Your task to perform on an android device: turn on showing notifications on the lock screen Image 0: 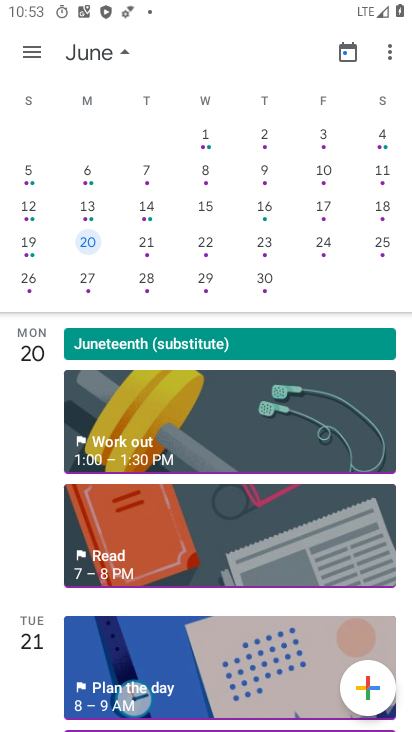
Step 0: press home button
Your task to perform on an android device: turn on showing notifications on the lock screen Image 1: 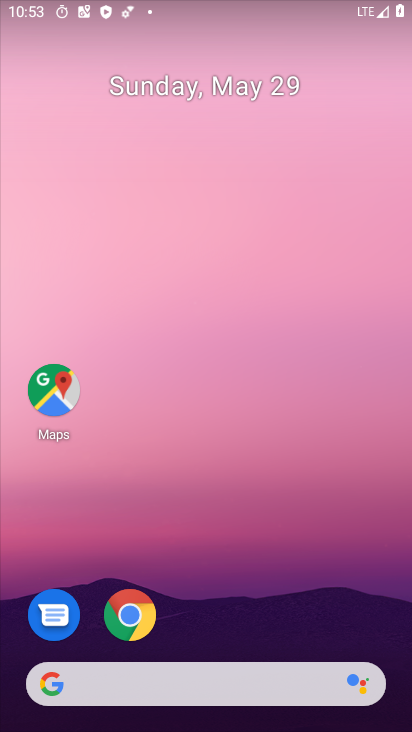
Step 1: drag from (334, 598) to (365, 210)
Your task to perform on an android device: turn on showing notifications on the lock screen Image 2: 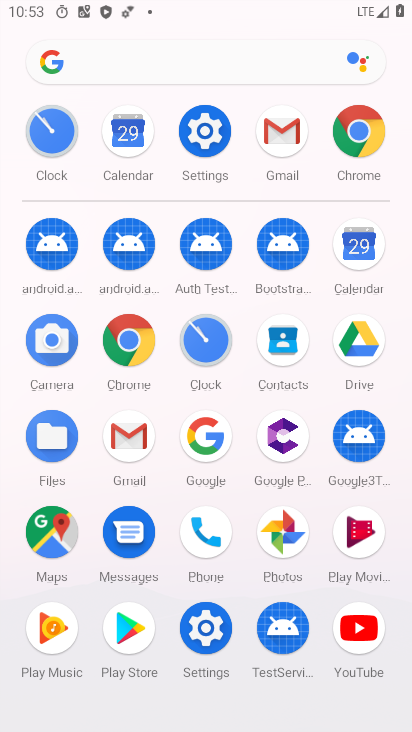
Step 2: click (214, 646)
Your task to perform on an android device: turn on showing notifications on the lock screen Image 3: 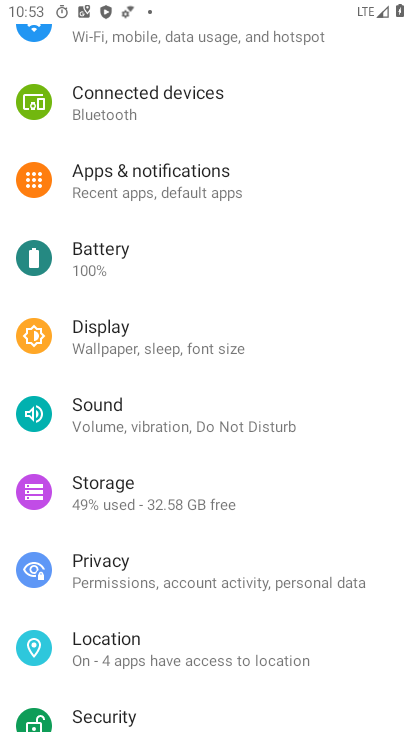
Step 3: drag from (340, 205) to (338, 321)
Your task to perform on an android device: turn on showing notifications on the lock screen Image 4: 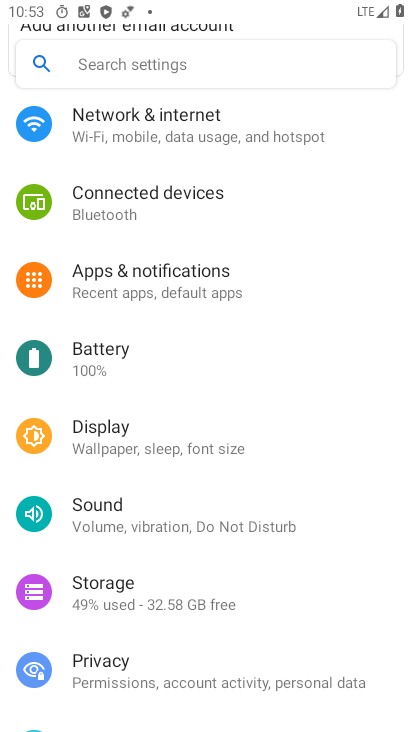
Step 4: drag from (354, 167) to (343, 416)
Your task to perform on an android device: turn on showing notifications on the lock screen Image 5: 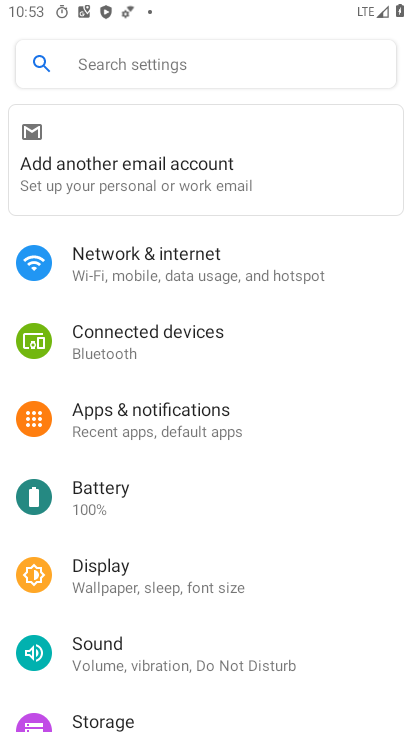
Step 5: click (162, 437)
Your task to perform on an android device: turn on showing notifications on the lock screen Image 6: 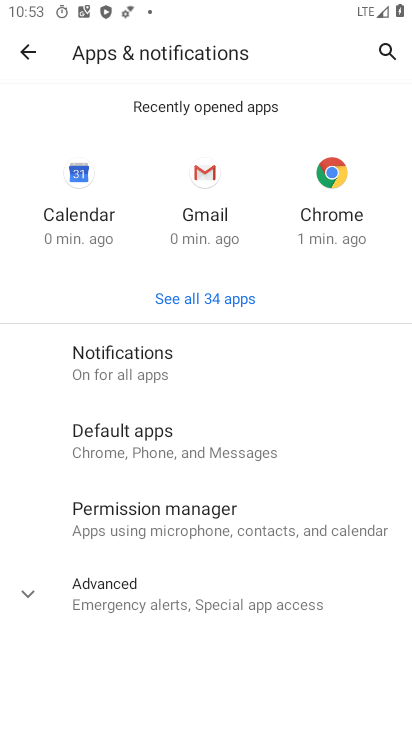
Step 6: click (150, 373)
Your task to perform on an android device: turn on showing notifications on the lock screen Image 7: 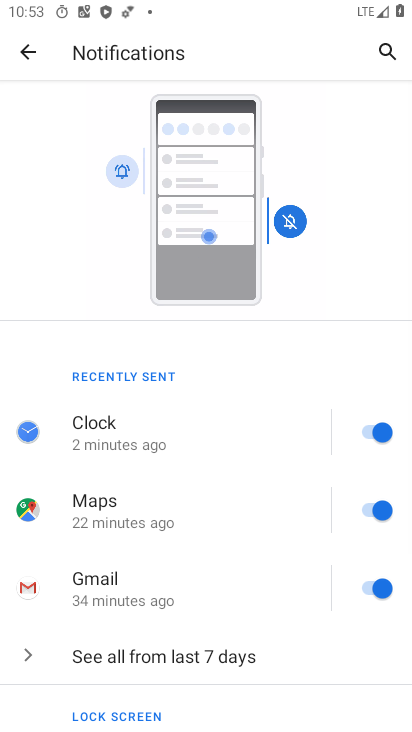
Step 7: drag from (225, 552) to (235, 456)
Your task to perform on an android device: turn on showing notifications on the lock screen Image 8: 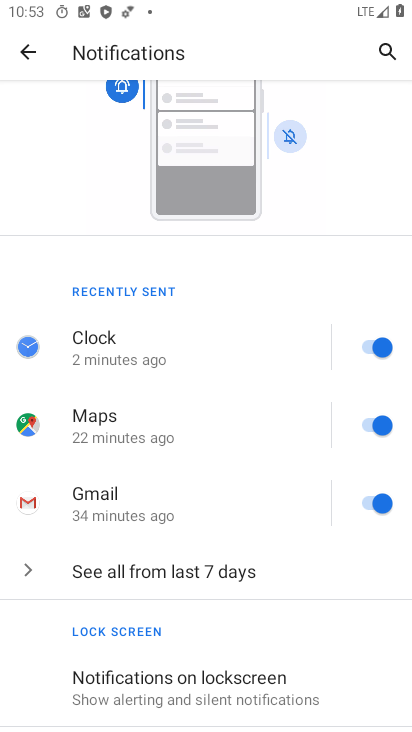
Step 8: drag from (264, 610) to (277, 407)
Your task to perform on an android device: turn on showing notifications on the lock screen Image 9: 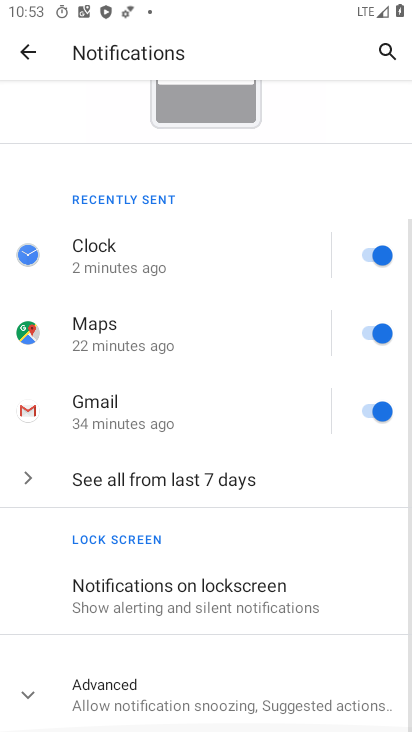
Step 9: click (268, 598)
Your task to perform on an android device: turn on showing notifications on the lock screen Image 10: 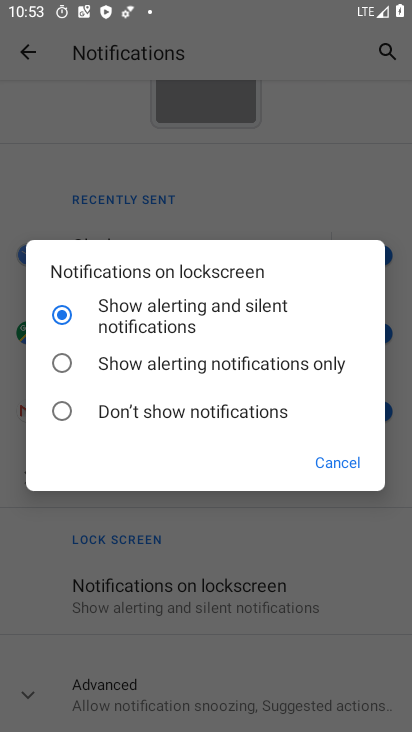
Step 10: task complete